Your task to perform on an android device: Open Google Maps Image 0: 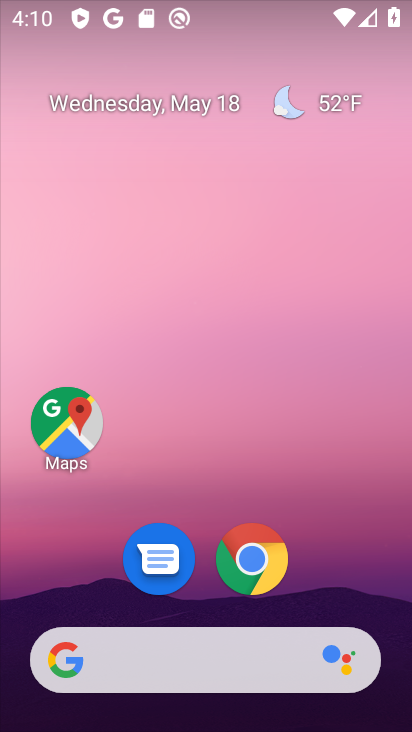
Step 0: click (64, 415)
Your task to perform on an android device: Open Google Maps Image 1: 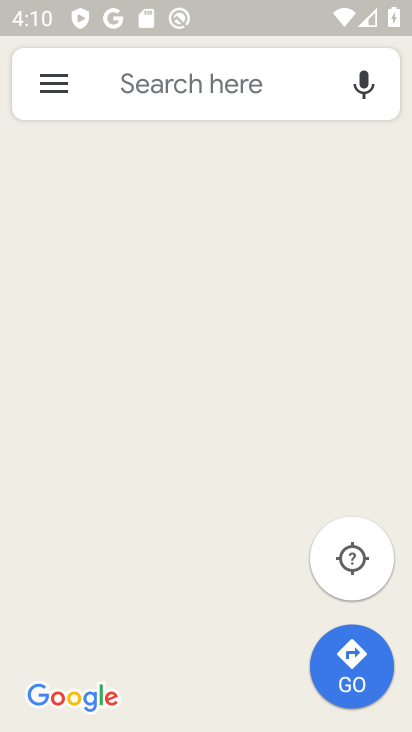
Step 1: task complete